Your task to perform on an android device: Find coffee shops on Maps Image 0: 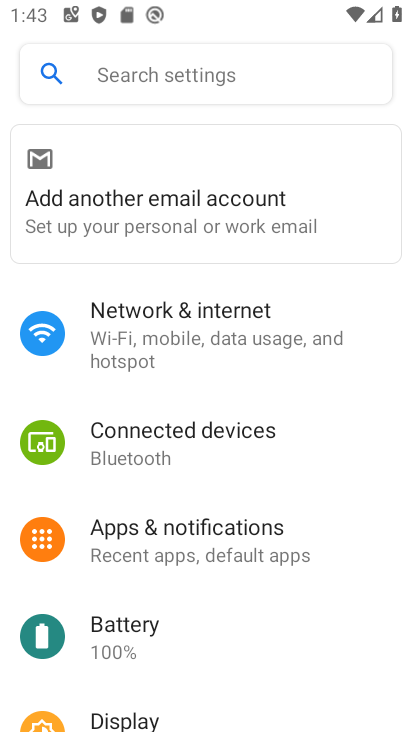
Step 0: drag from (213, 666) to (214, 311)
Your task to perform on an android device: Find coffee shops on Maps Image 1: 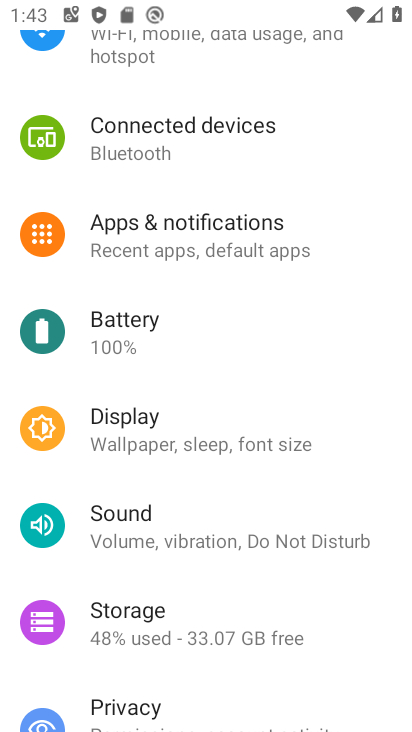
Step 1: drag from (223, 655) to (213, 198)
Your task to perform on an android device: Find coffee shops on Maps Image 2: 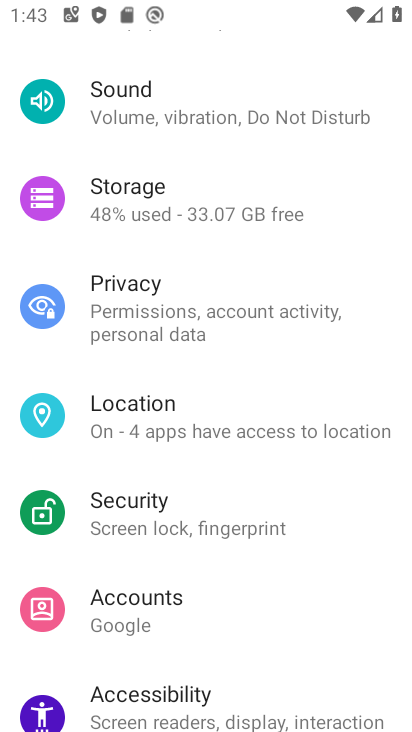
Step 2: drag from (241, 655) to (234, 171)
Your task to perform on an android device: Find coffee shops on Maps Image 3: 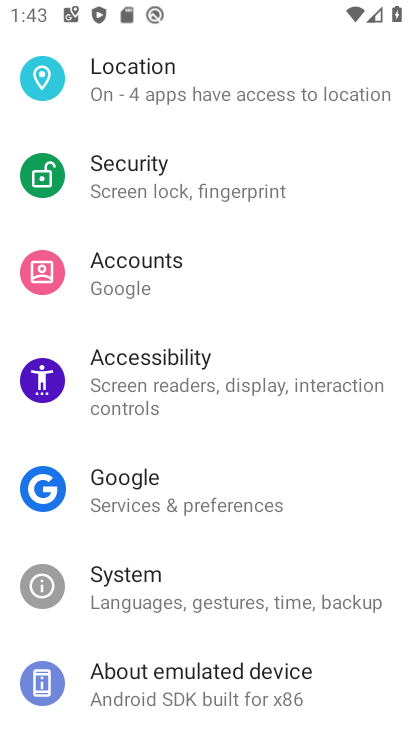
Step 3: drag from (196, 624) to (279, 460)
Your task to perform on an android device: Find coffee shops on Maps Image 4: 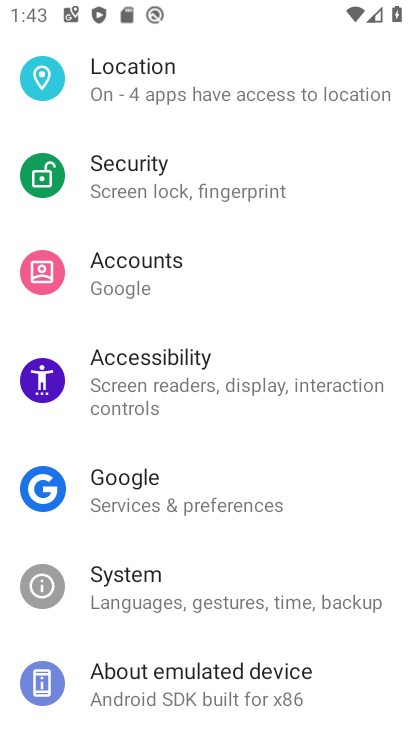
Step 4: press home button
Your task to perform on an android device: Find coffee shops on Maps Image 5: 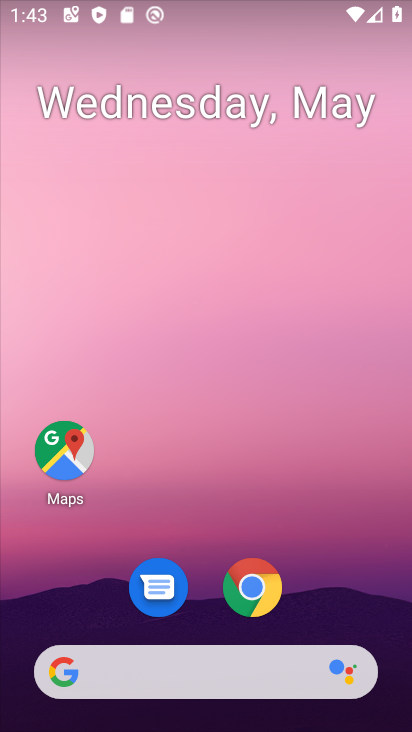
Step 5: click (41, 453)
Your task to perform on an android device: Find coffee shops on Maps Image 6: 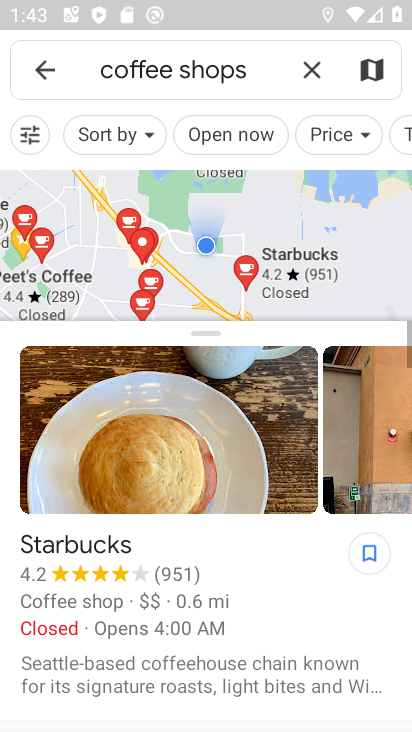
Step 6: task complete